Your task to perform on an android device: What's the news in South Korea? Image 0: 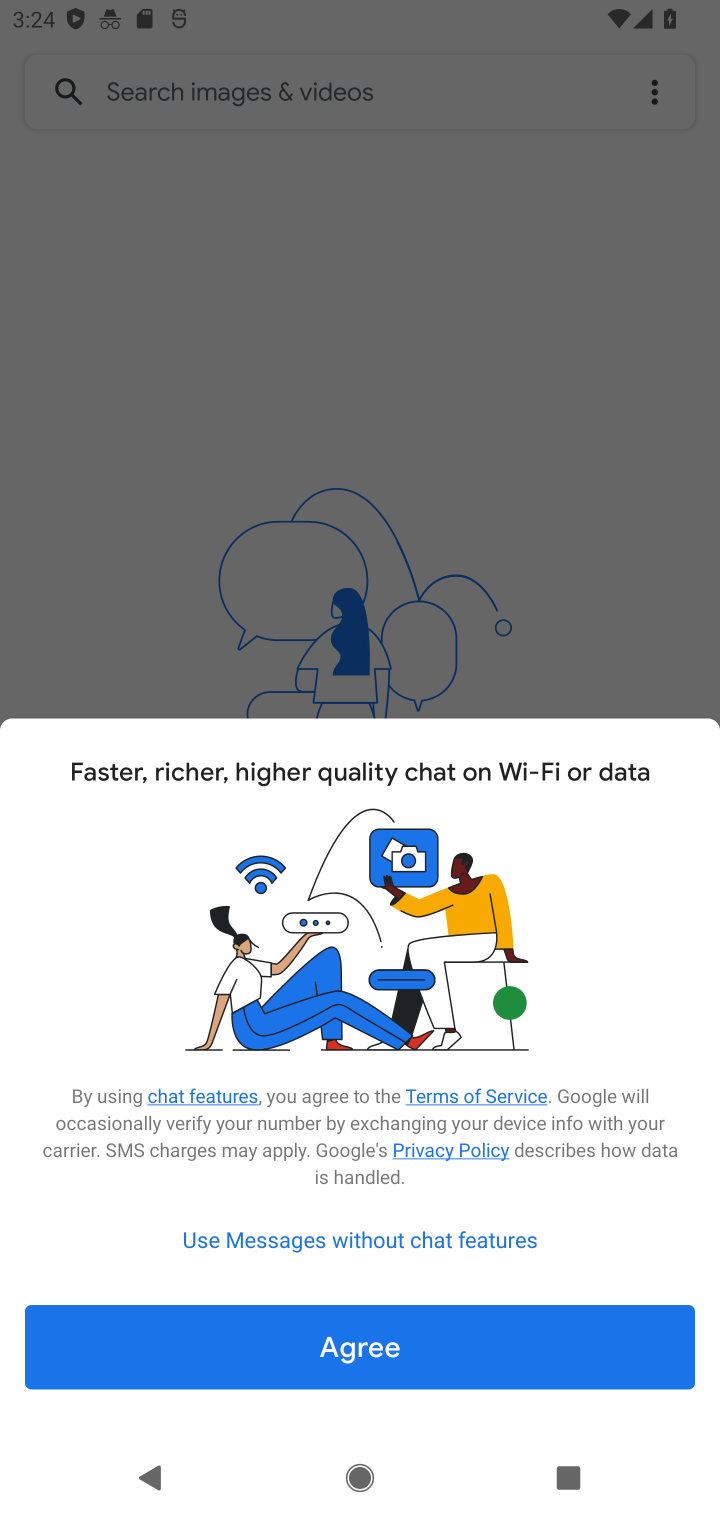
Step 0: press home button
Your task to perform on an android device: What's the news in South Korea? Image 1: 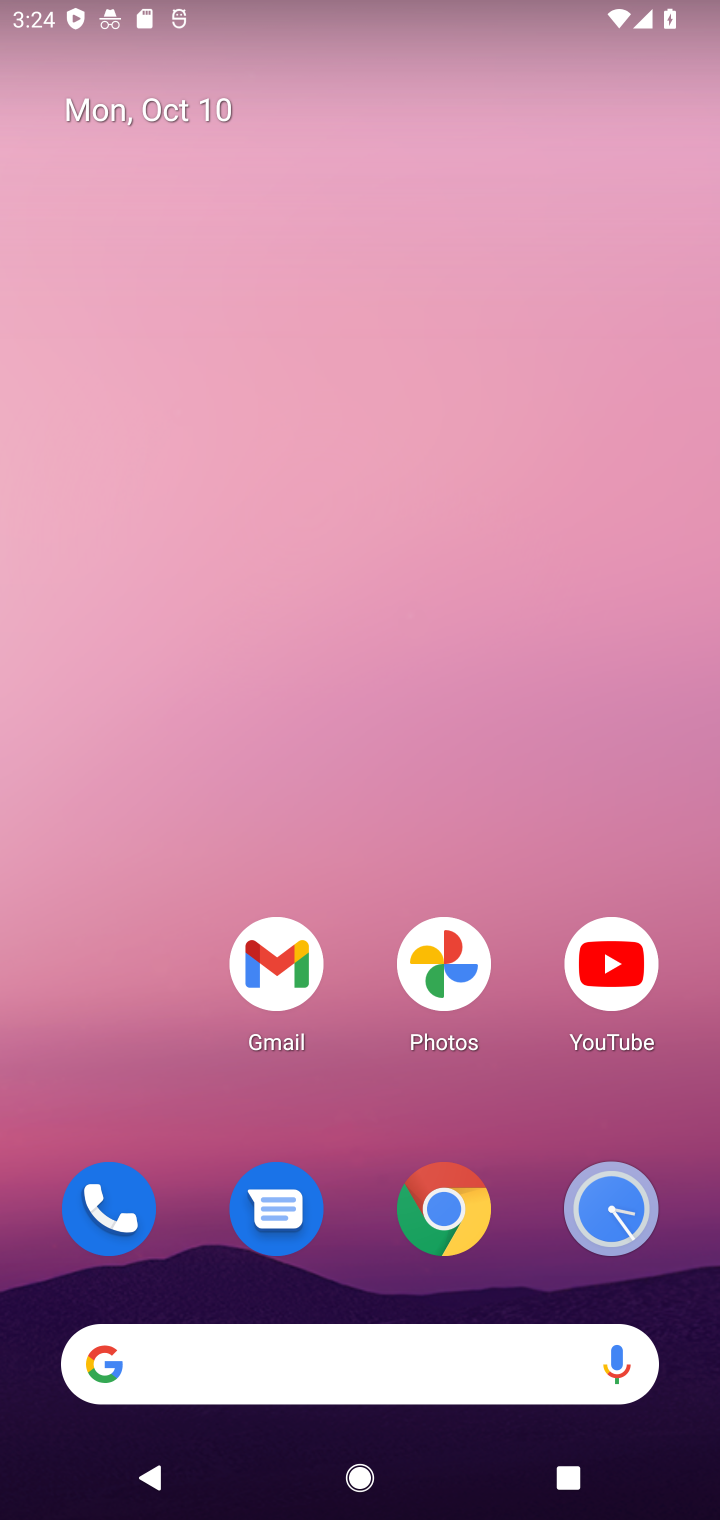
Step 1: click (430, 1232)
Your task to perform on an android device: What's the news in South Korea? Image 2: 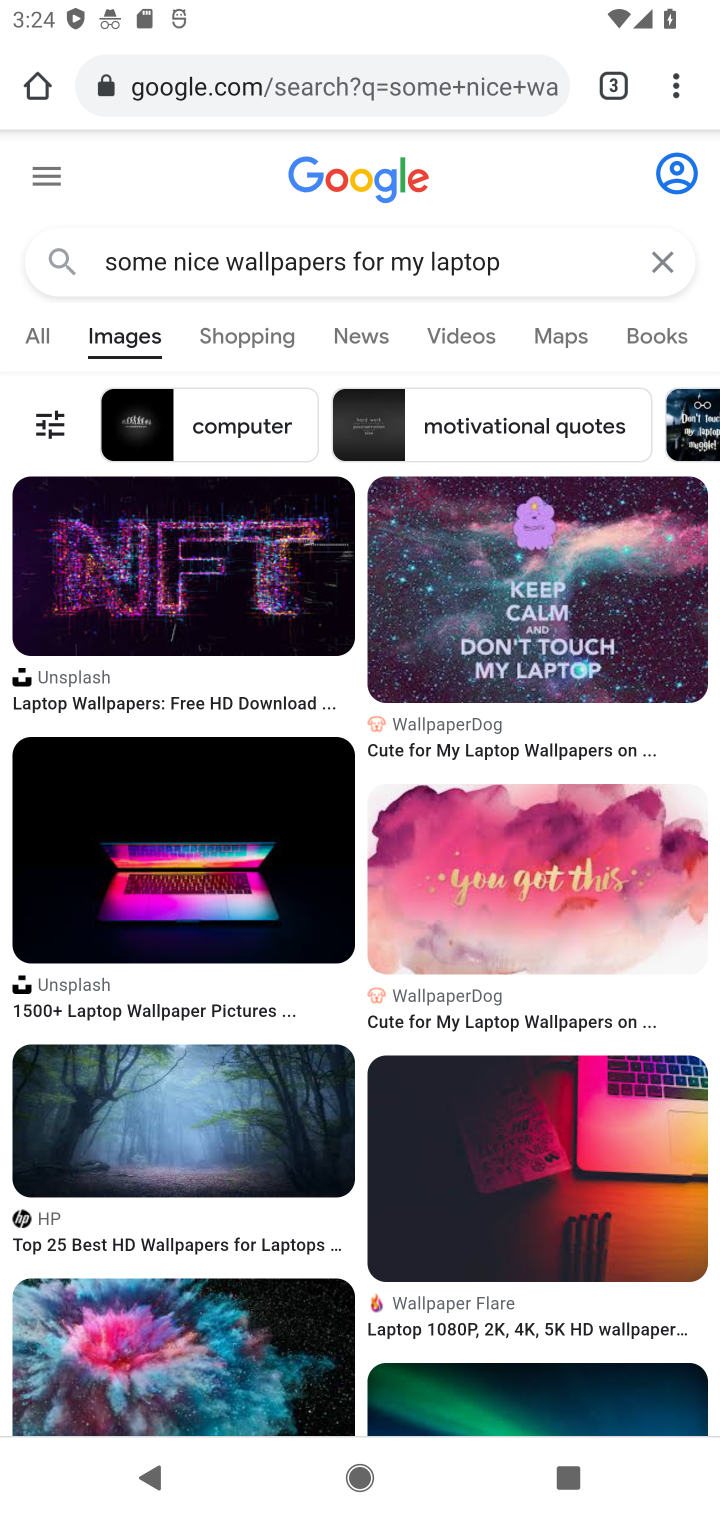
Step 2: click (675, 254)
Your task to perform on an android device: What's the news in South Korea? Image 3: 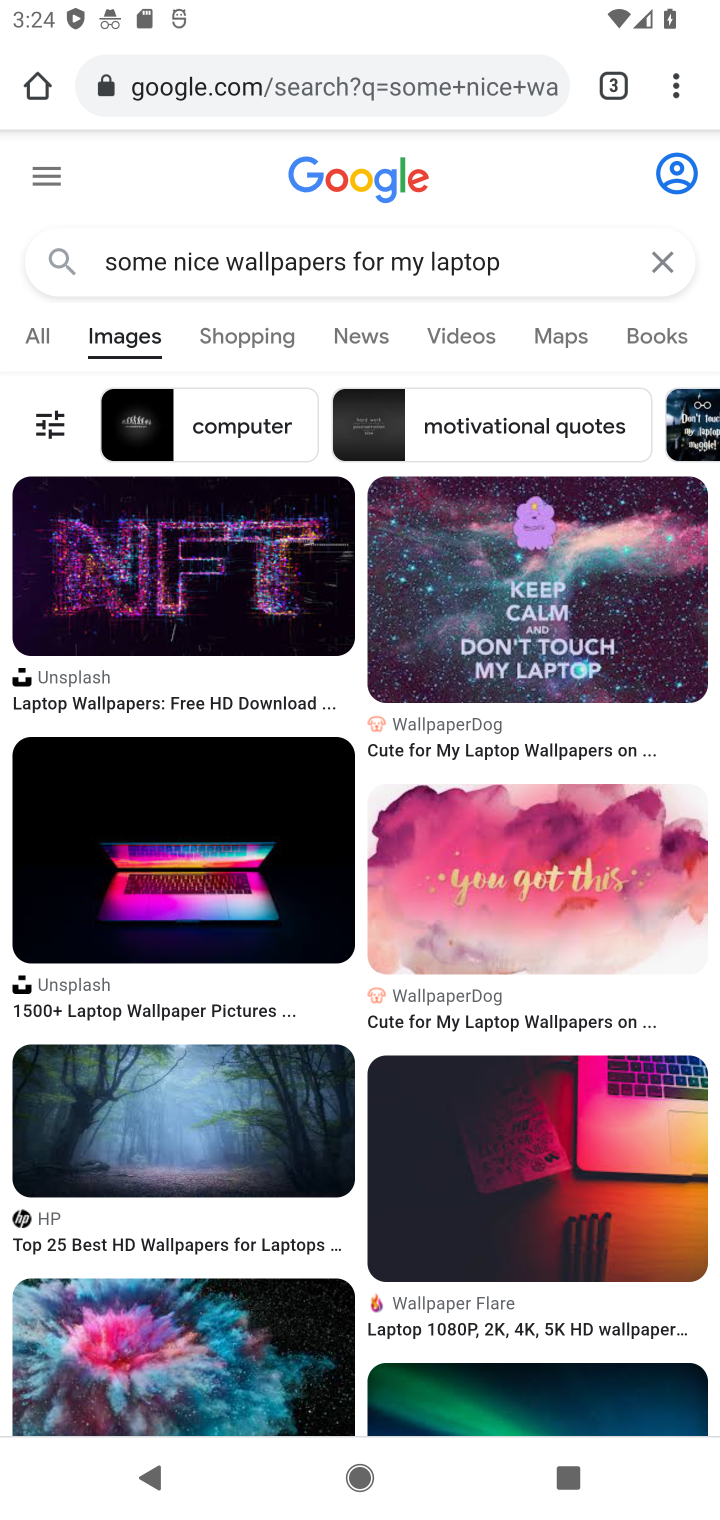
Step 3: click (654, 260)
Your task to perform on an android device: What's the news in South Korea? Image 4: 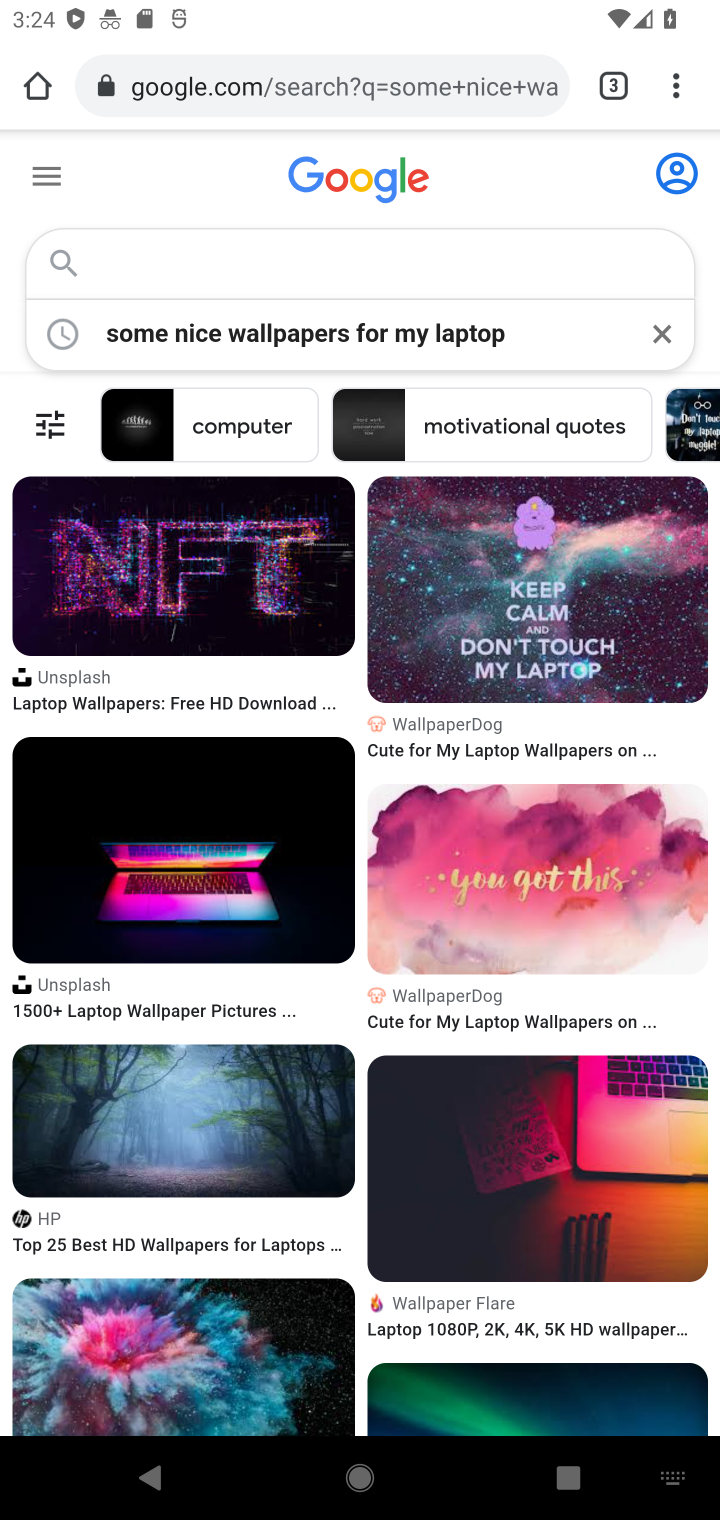
Step 4: press enter
Your task to perform on an android device: What's the news in South Korea? Image 5: 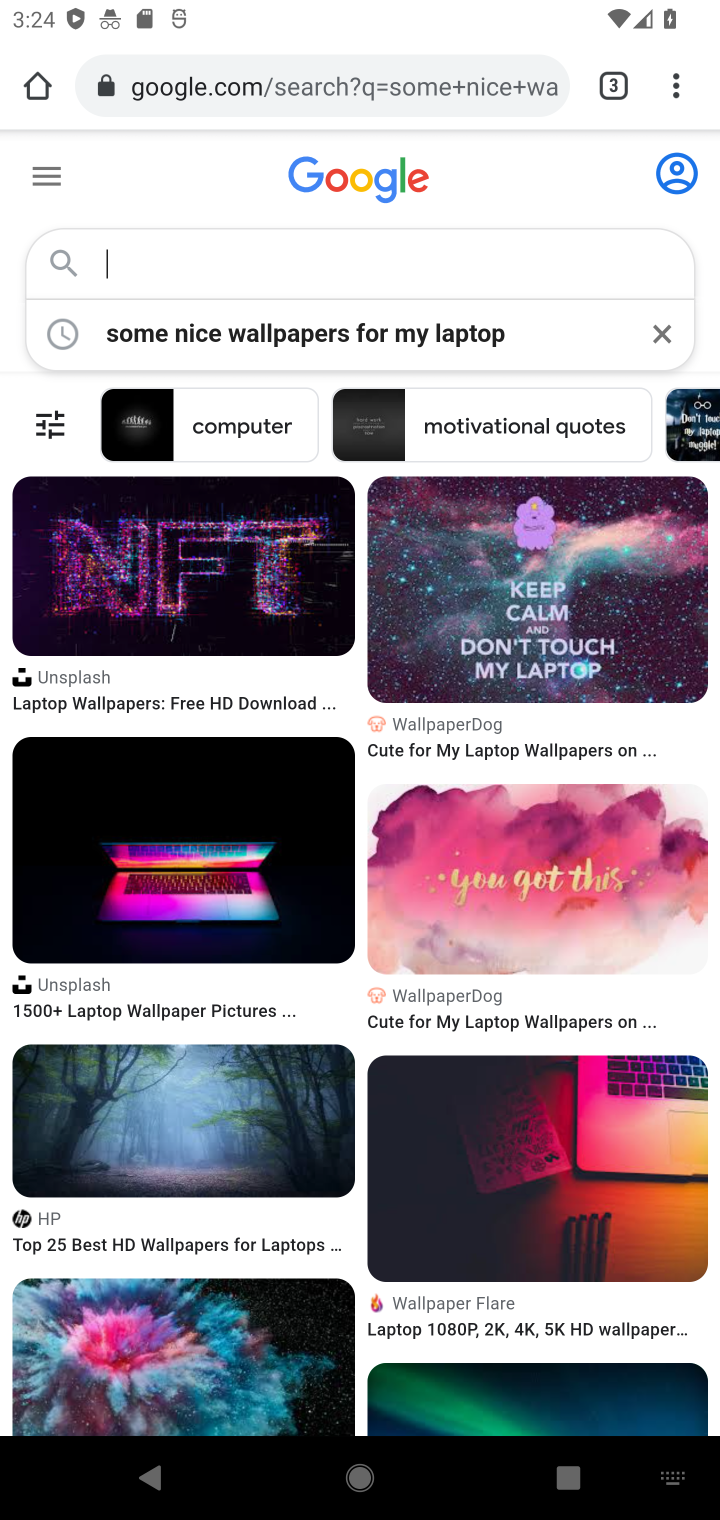
Step 5: type "What's the news in South Korea?"
Your task to perform on an android device: What's the news in South Korea? Image 6: 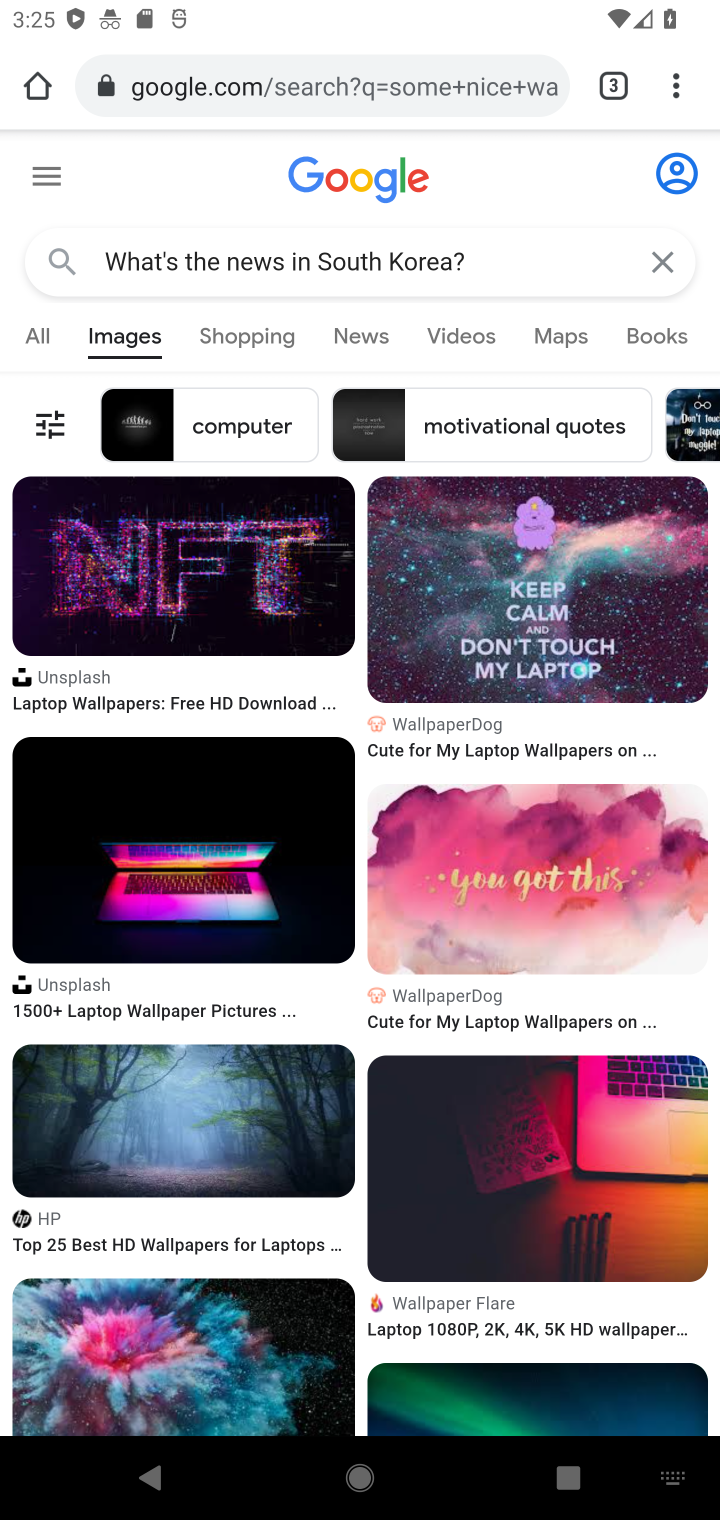
Step 6: click (589, 257)
Your task to perform on an android device: What's the news in South Korea? Image 7: 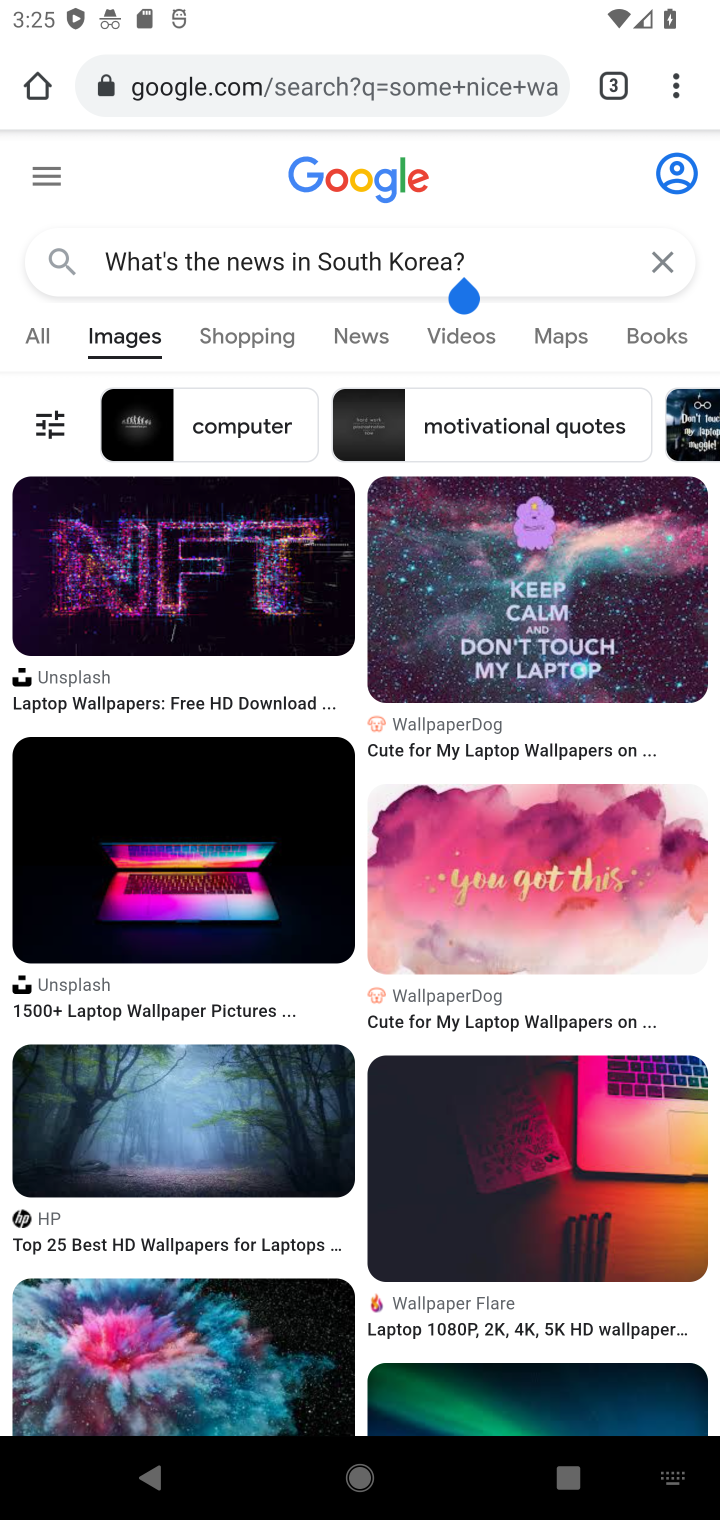
Step 7: press enter
Your task to perform on an android device: What's the news in South Korea? Image 8: 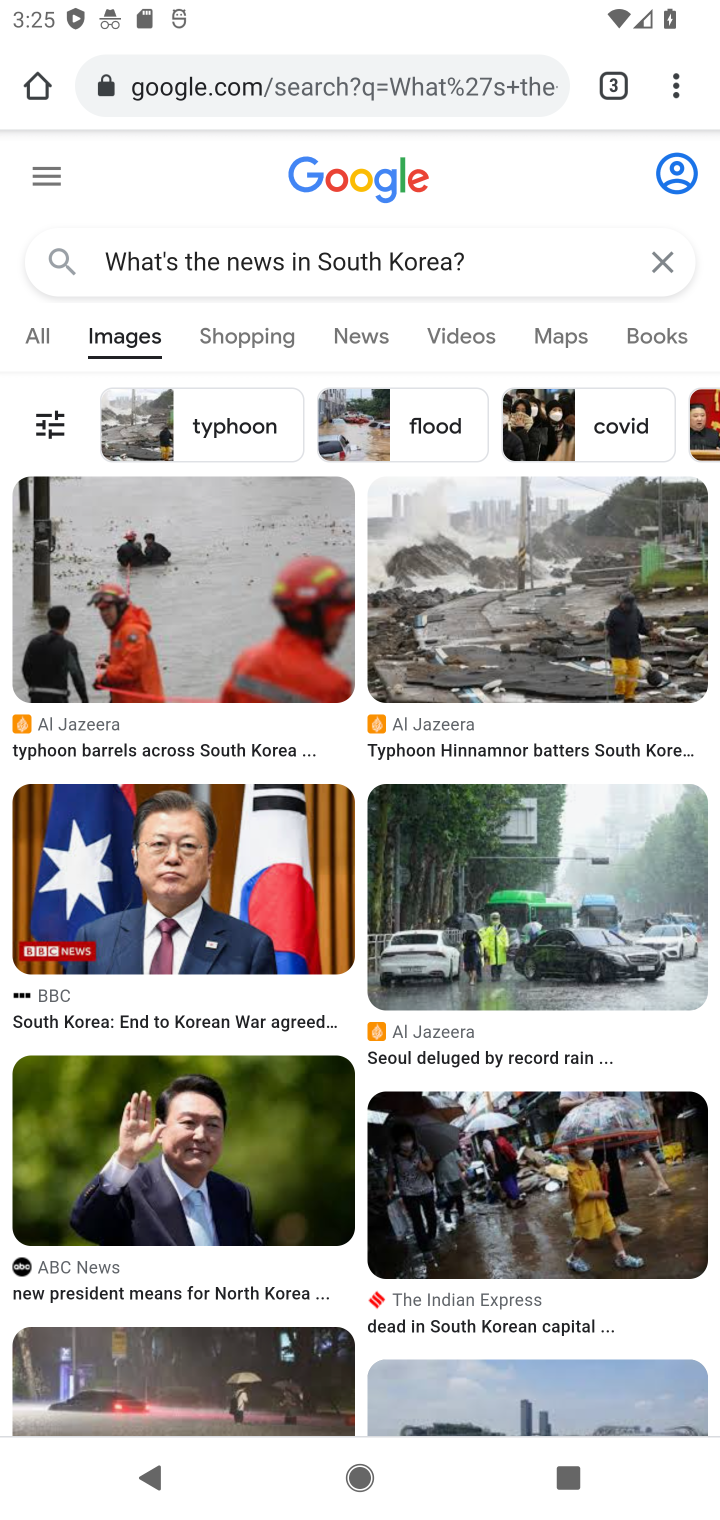
Step 8: click (39, 342)
Your task to perform on an android device: What's the news in South Korea? Image 9: 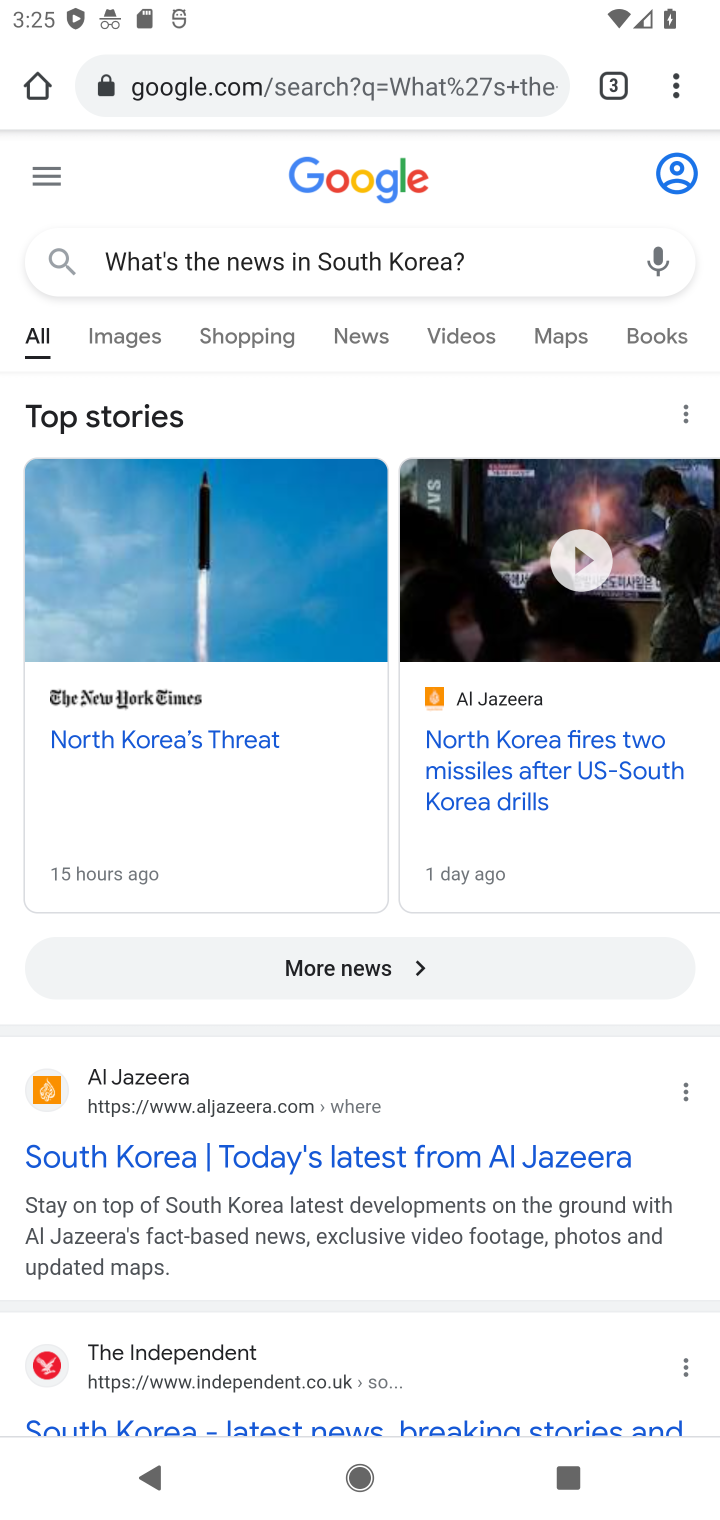
Step 9: click (355, 335)
Your task to perform on an android device: What's the news in South Korea? Image 10: 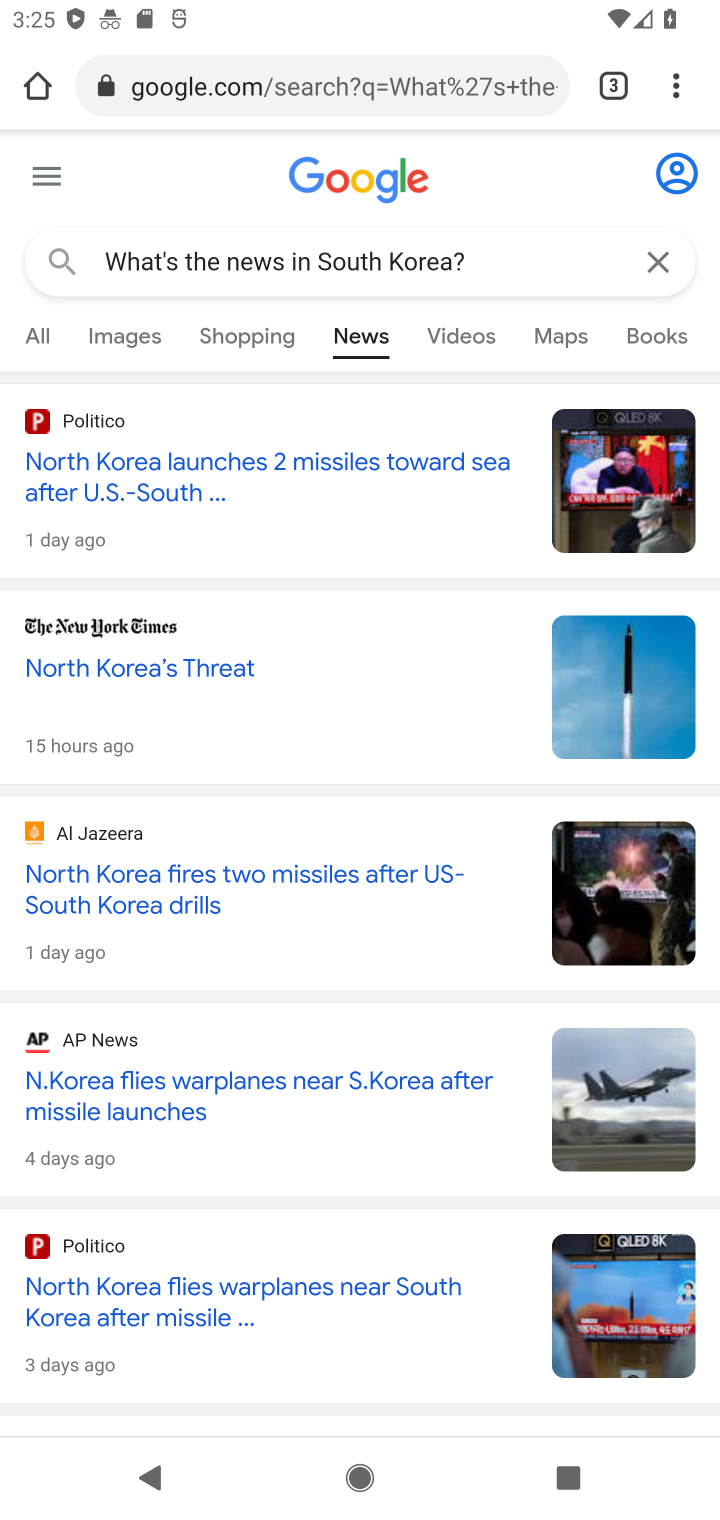
Step 10: task complete